Your task to perform on an android device: Do I have any events tomorrow? Image 0: 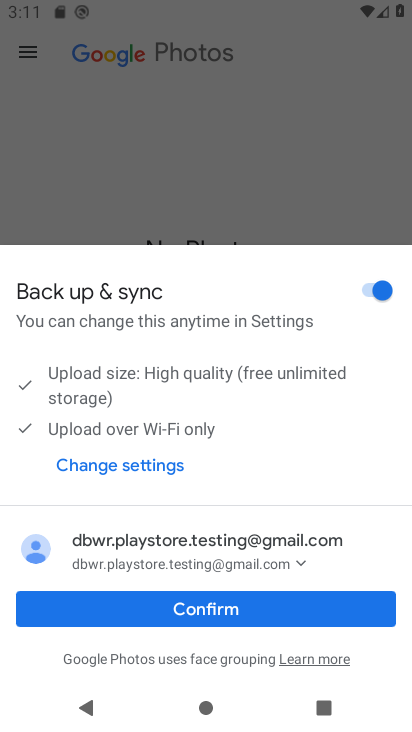
Step 0: press home button
Your task to perform on an android device: Do I have any events tomorrow? Image 1: 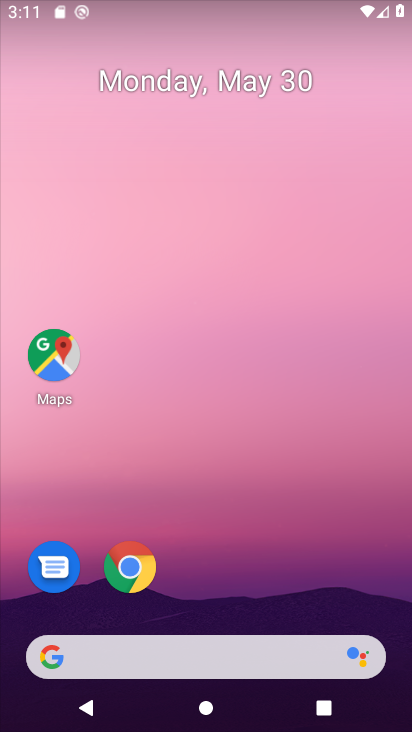
Step 1: drag from (250, 560) to (292, 88)
Your task to perform on an android device: Do I have any events tomorrow? Image 2: 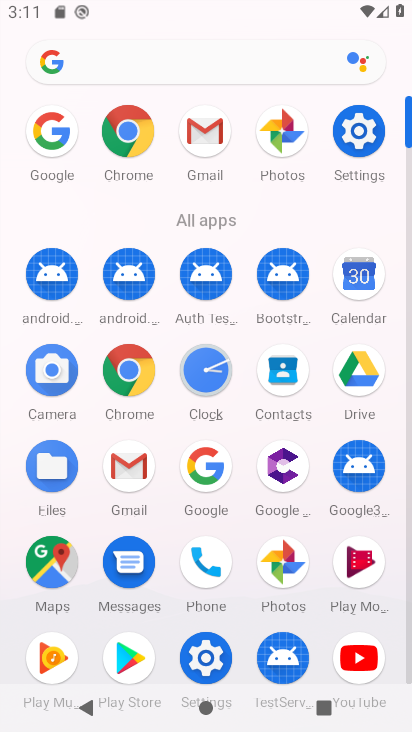
Step 2: click (367, 270)
Your task to perform on an android device: Do I have any events tomorrow? Image 3: 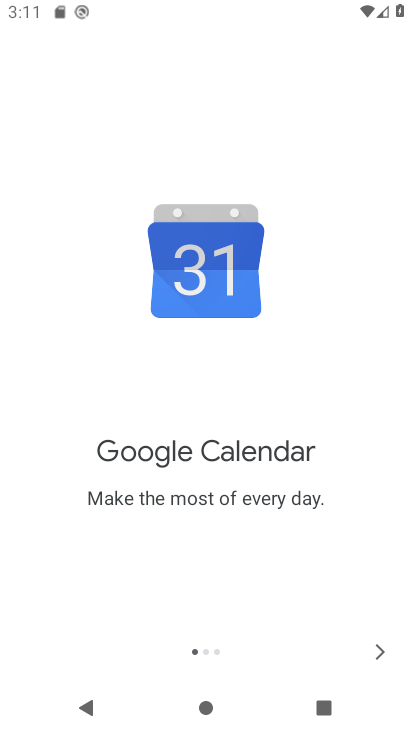
Step 3: click (361, 651)
Your task to perform on an android device: Do I have any events tomorrow? Image 4: 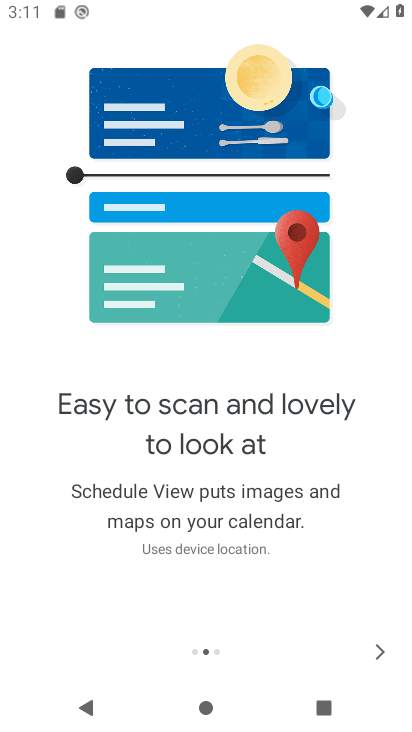
Step 4: click (360, 644)
Your task to perform on an android device: Do I have any events tomorrow? Image 5: 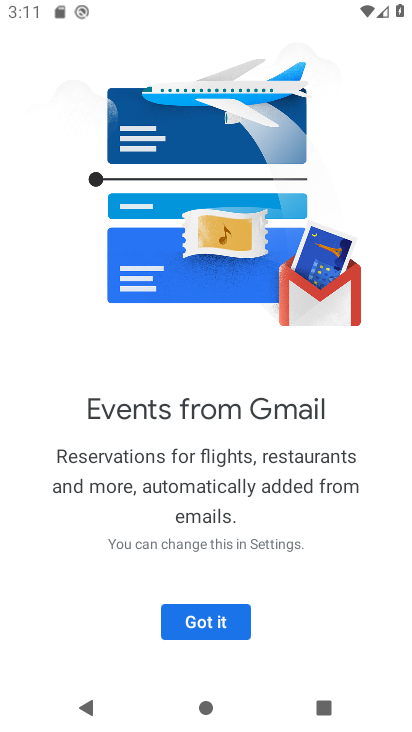
Step 5: click (184, 631)
Your task to perform on an android device: Do I have any events tomorrow? Image 6: 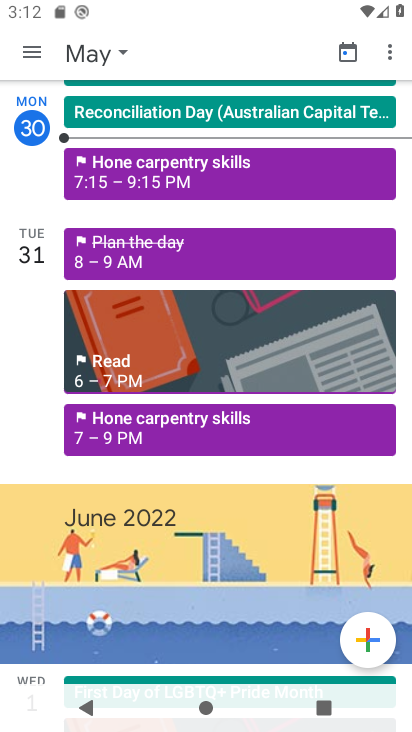
Step 6: click (97, 61)
Your task to perform on an android device: Do I have any events tomorrow? Image 7: 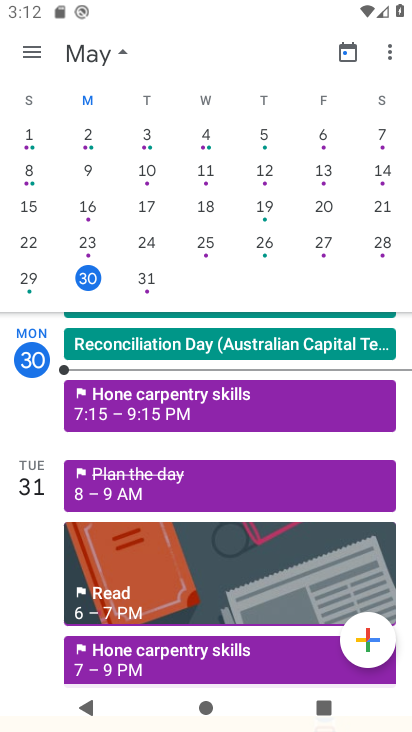
Step 7: click (134, 285)
Your task to perform on an android device: Do I have any events tomorrow? Image 8: 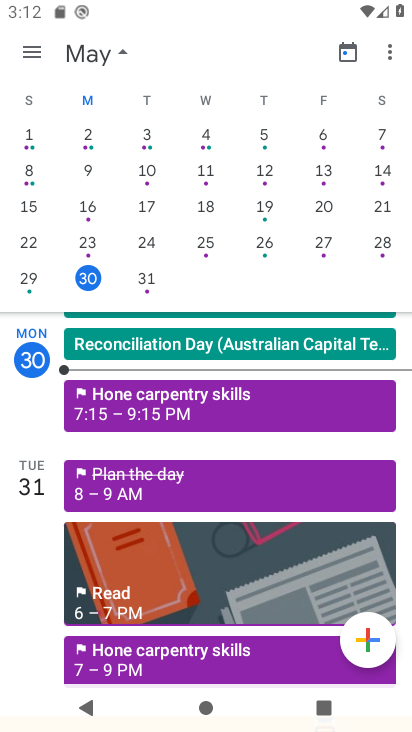
Step 8: click (145, 287)
Your task to perform on an android device: Do I have any events tomorrow? Image 9: 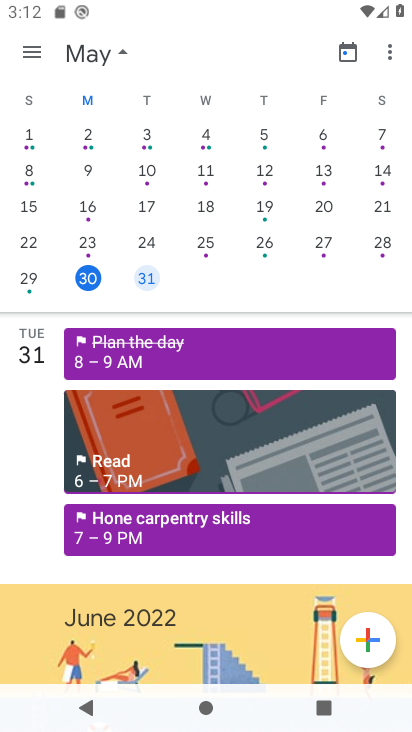
Step 9: task complete